Your task to perform on an android device: toggle sleep mode Image 0: 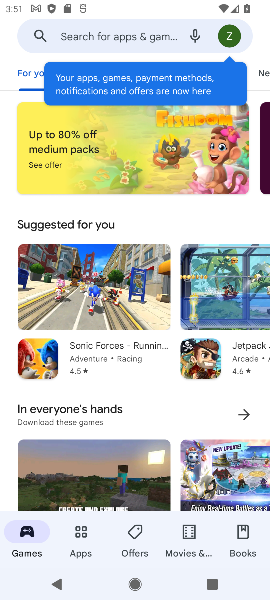
Step 0: drag from (116, 471) to (143, 134)
Your task to perform on an android device: toggle sleep mode Image 1: 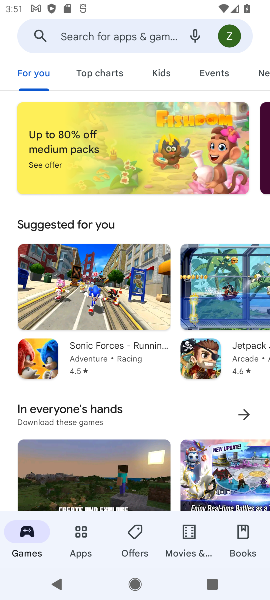
Step 1: press home button
Your task to perform on an android device: toggle sleep mode Image 2: 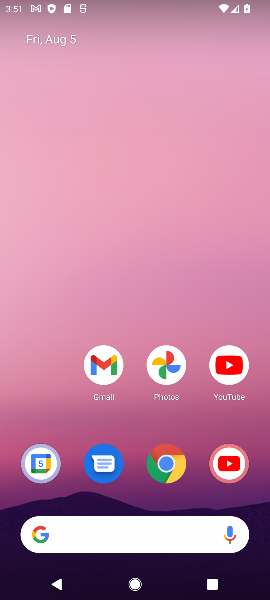
Step 2: drag from (121, 488) to (156, 44)
Your task to perform on an android device: toggle sleep mode Image 3: 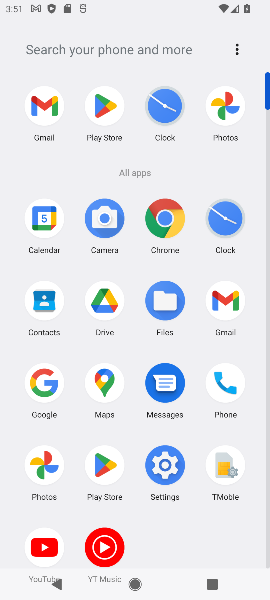
Step 3: click (156, 460)
Your task to perform on an android device: toggle sleep mode Image 4: 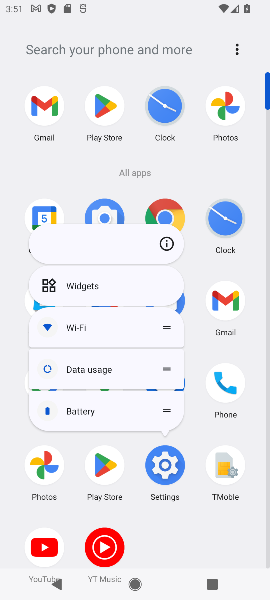
Step 4: click (168, 236)
Your task to perform on an android device: toggle sleep mode Image 5: 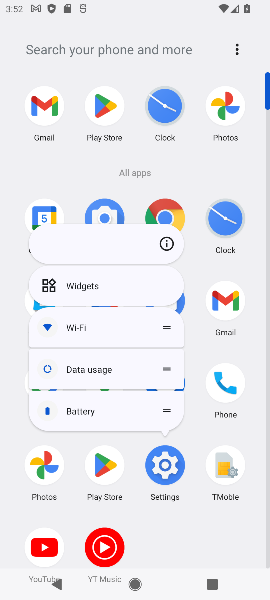
Step 5: click (171, 248)
Your task to perform on an android device: toggle sleep mode Image 6: 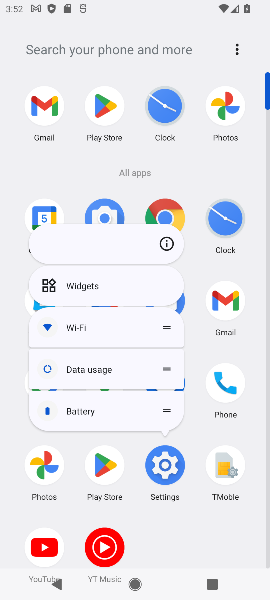
Step 6: click (159, 237)
Your task to perform on an android device: toggle sleep mode Image 7: 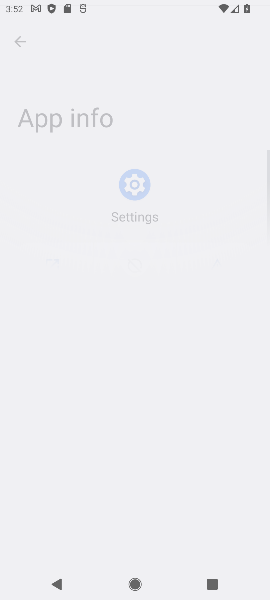
Step 7: click (162, 242)
Your task to perform on an android device: toggle sleep mode Image 8: 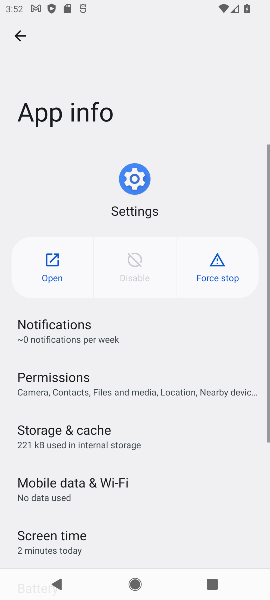
Step 8: click (162, 242)
Your task to perform on an android device: toggle sleep mode Image 9: 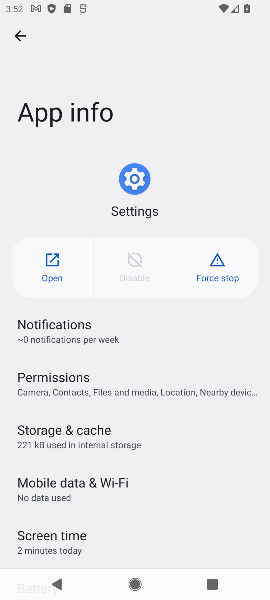
Step 9: click (32, 268)
Your task to perform on an android device: toggle sleep mode Image 10: 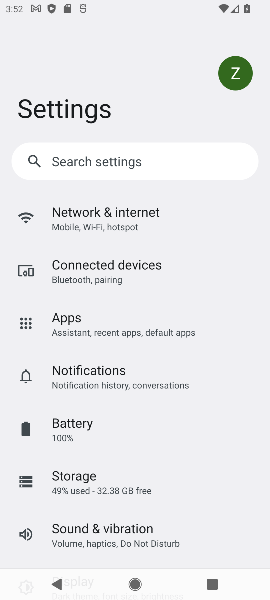
Step 10: drag from (125, 428) to (164, 224)
Your task to perform on an android device: toggle sleep mode Image 11: 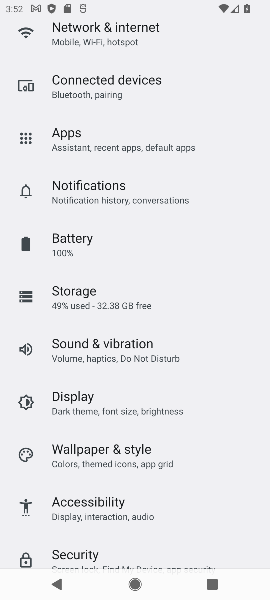
Step 11: click (91, 391)
Your task to perform on an android device: toggle sleep mode Image 12: 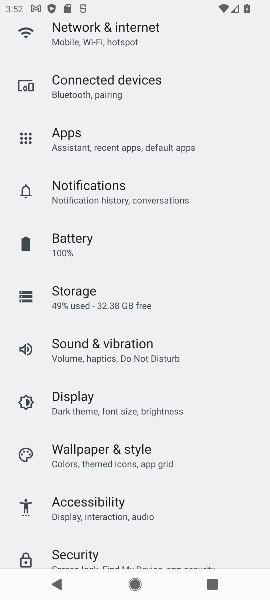
Step 12: click (90, 390)
Your task to perform on an android device: toggle sleep mode Image 13: 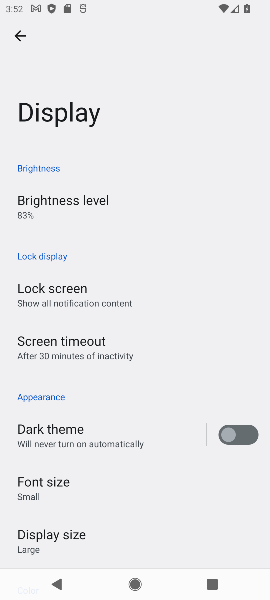
Step 13: click (66, 341)
Your task to perform on an android device: toggle sleep mode Image 14: 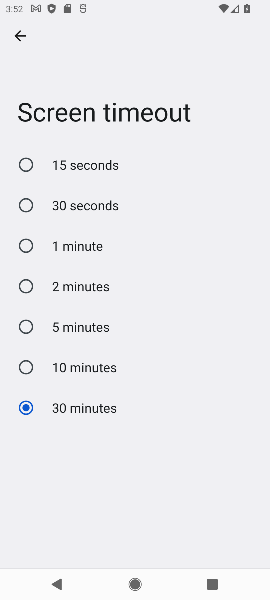
Step 14: click (21, 165)
Your task to perform on an android device: toggle sleep mode Image 15: 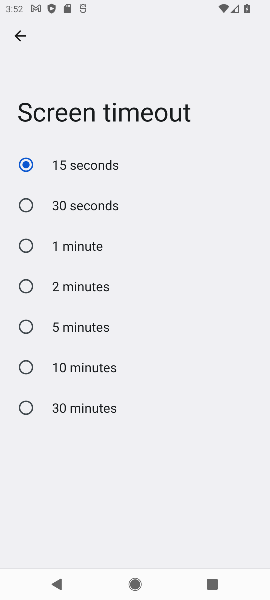
Step 15: task complete